Your task to perform on an android device: Search for razer kraken on amazon.com, select the first entry, and add it to the cart. Image 0: 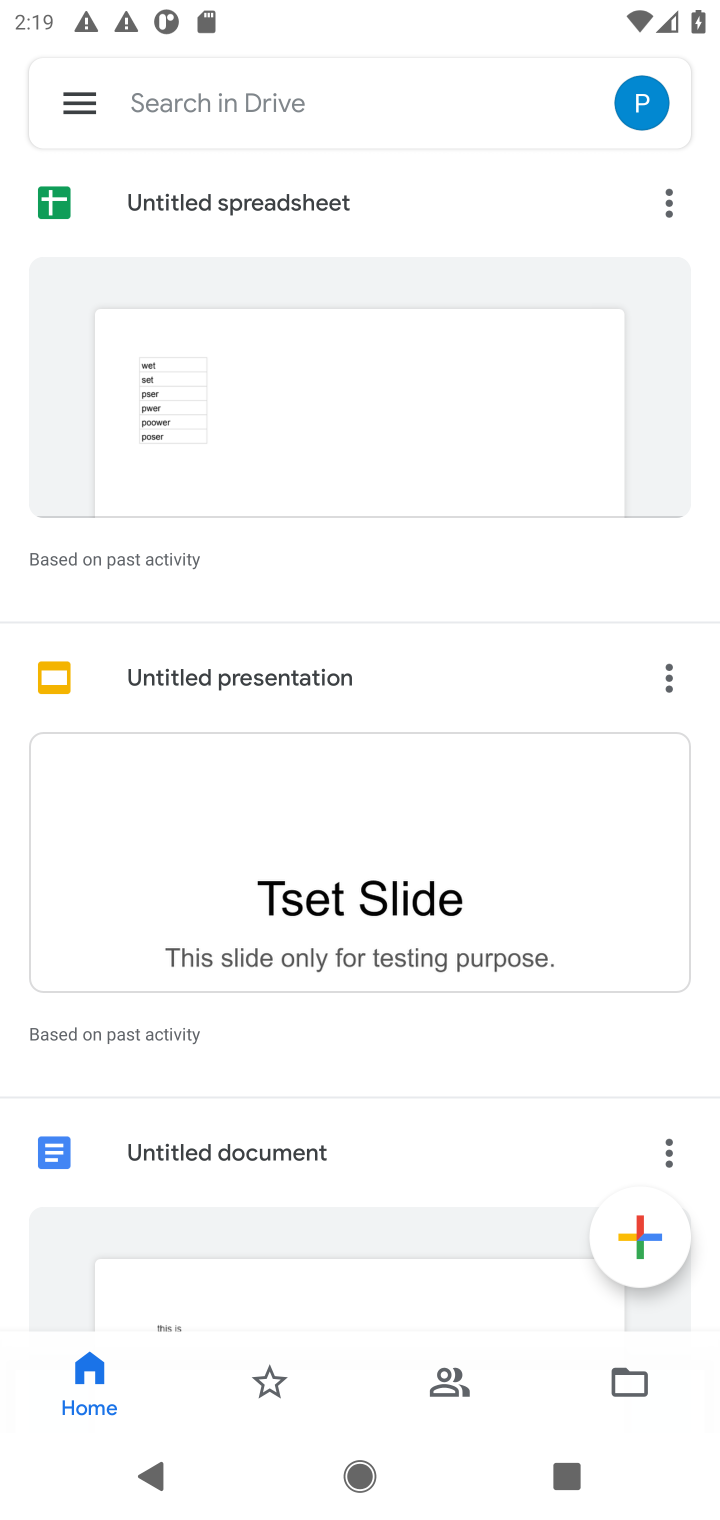
Step 0: press home button
Your task to perform on an android device: Search for razer kraken on amazon.com, select the first entry, and add it to the cart. Image 1: 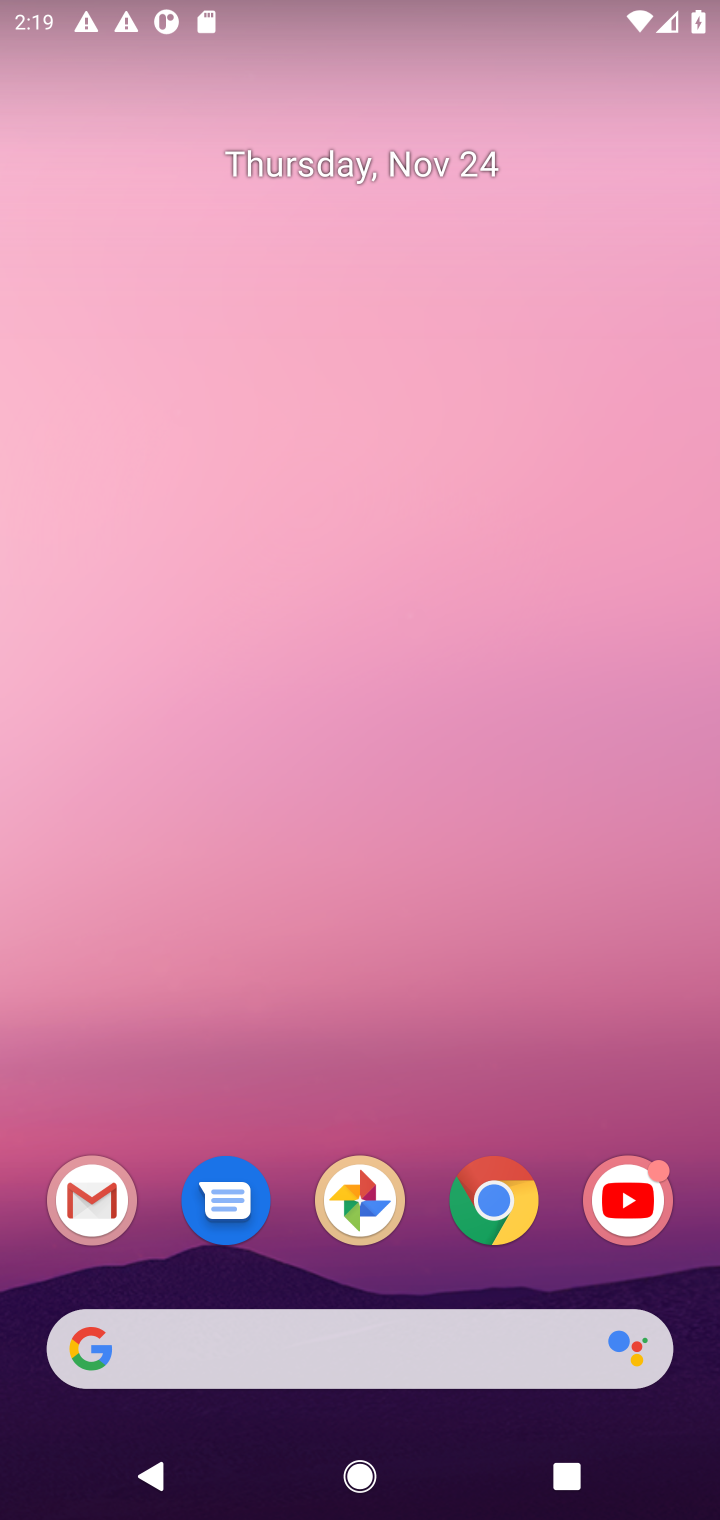
Step 1: click (354, 1341)
Your task to perform on an android device: Search for razer kraken on amazon.com, select the first entry, and add it to the cart. Image 2: 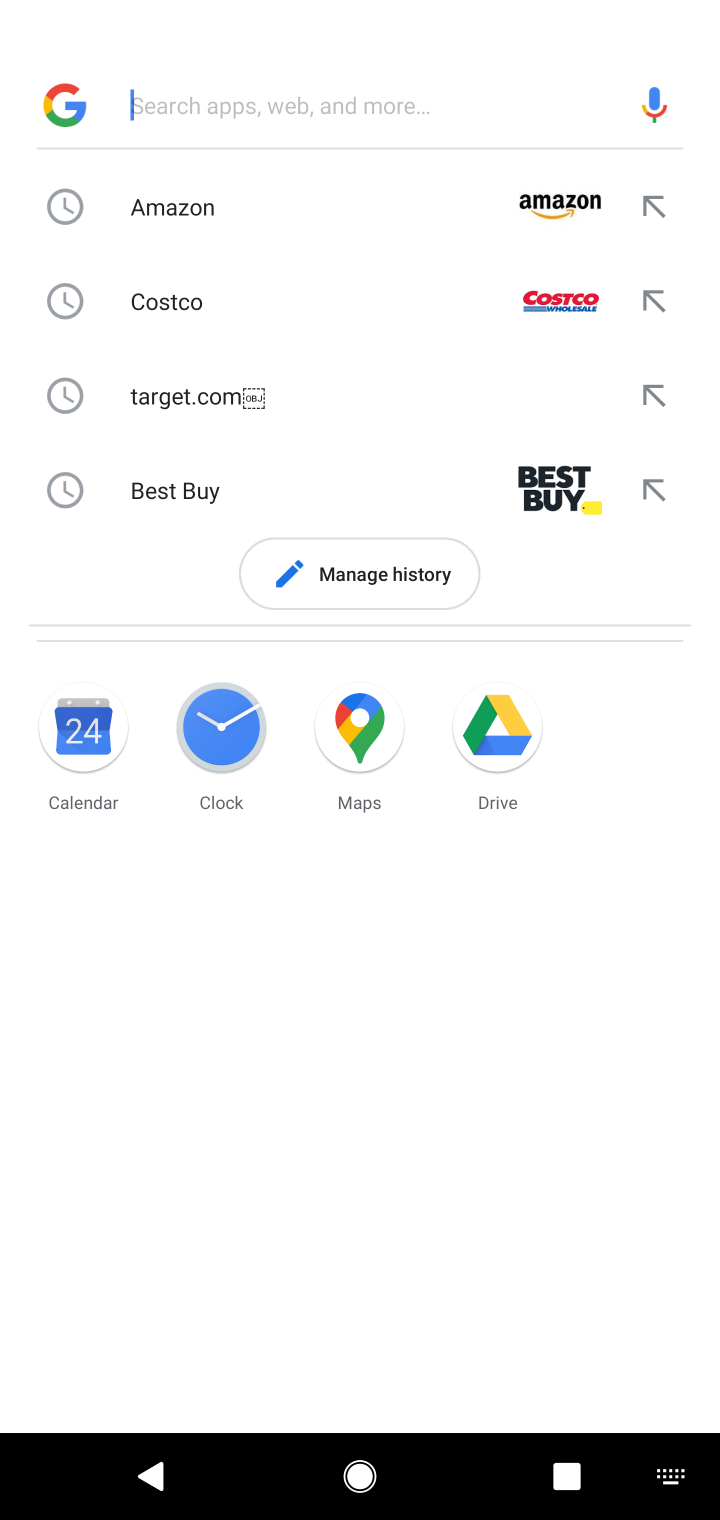
Step 2: type "amazon"
Your task to perform on an android device: Search for razer kraken on amazon.com, select the first entry, and add it to the cart. Image 3: 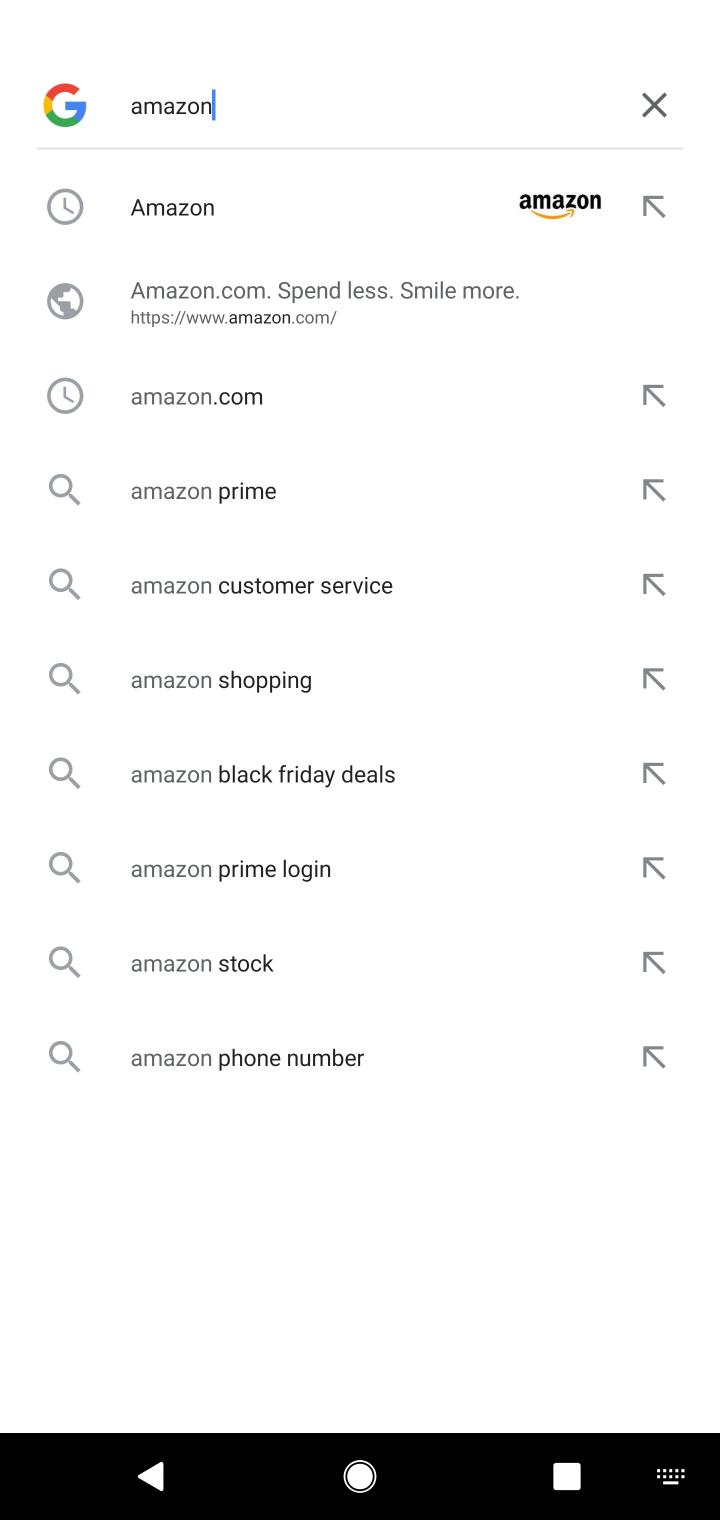
Step 3: click (162, 224)
Your task to perform on an android device: Search for razer kraken on amazon.com, select the first entry, and add it to the cart. Image 4: 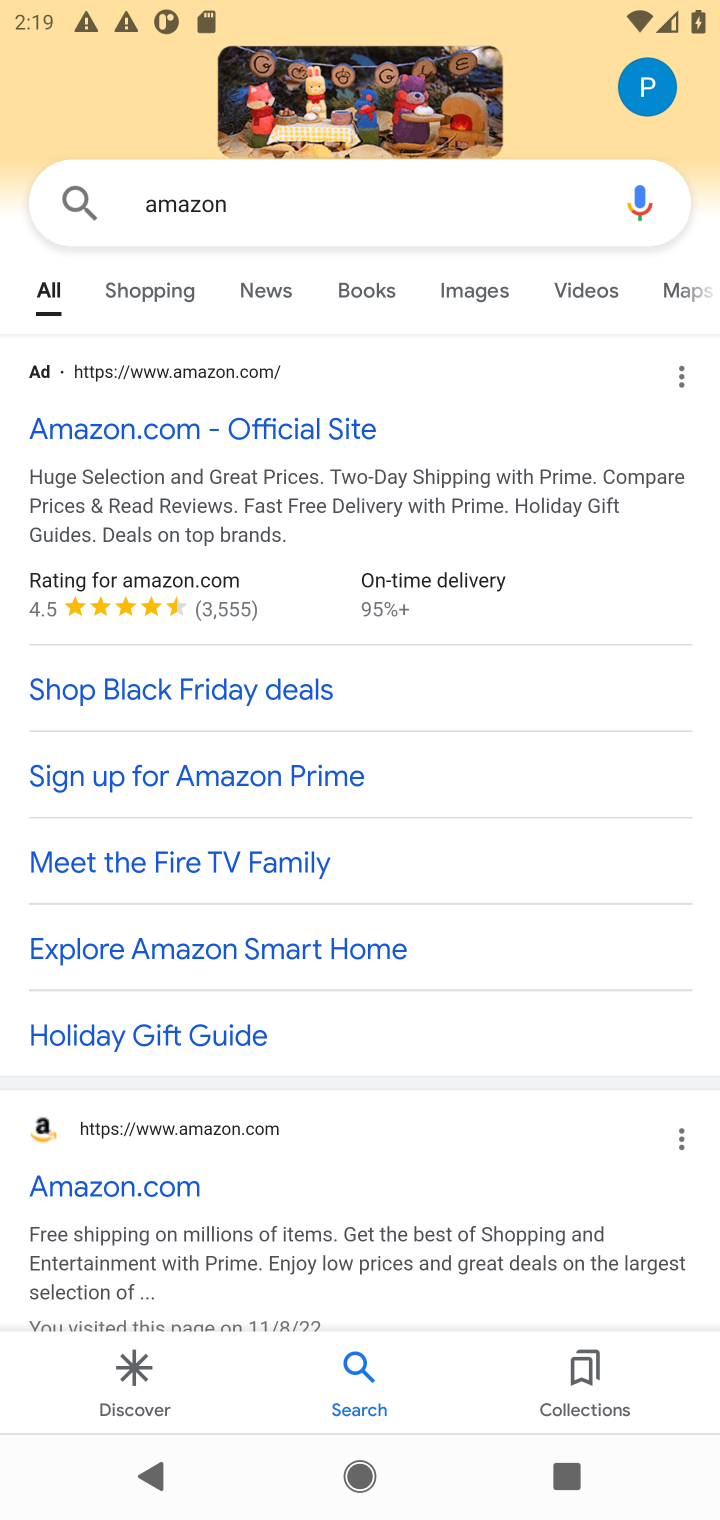
Step 4: click (302, 418)
Your task to perform on an android device: Search for razer kraken on amazon.com, select the first entry, and add it to the cart. Image 5: 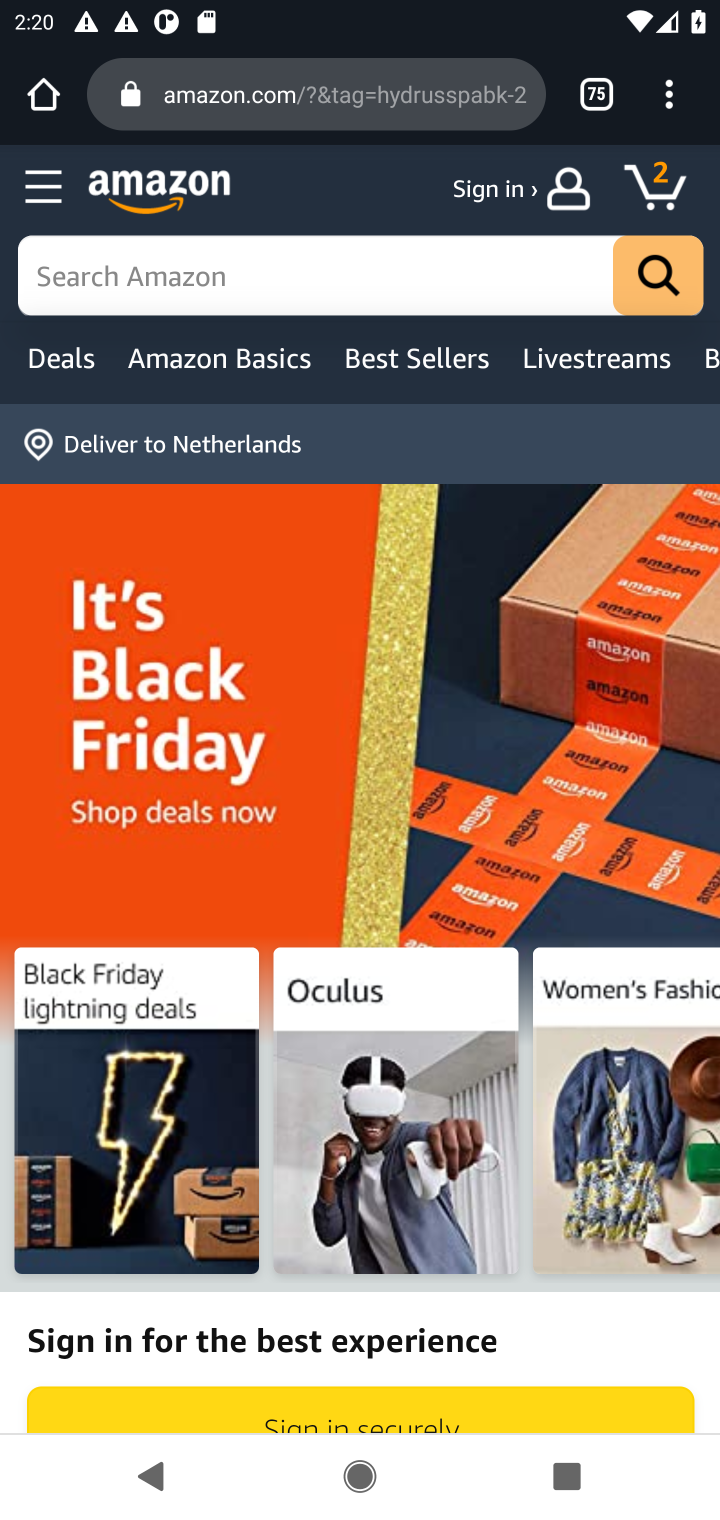
Step 5: click (382, 282)
Your task to perform on an android device: Search for razer kraken on amazon.com, select the first entry, and add it to the cart. Image 6: 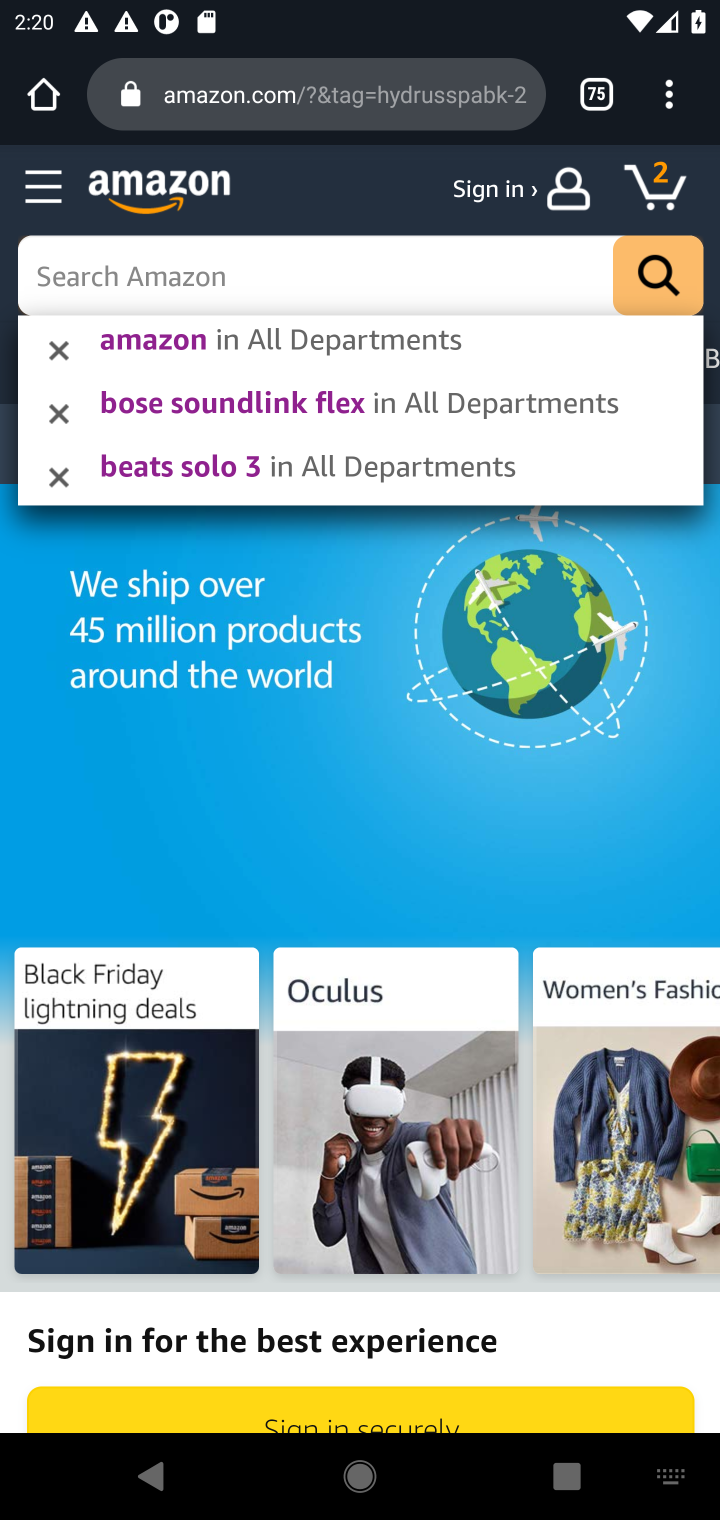
Step 6: type "razer karken"
Your task to perform on an android device: Search for razer kraken on amazon.com, select the first entry, and add it to the cart. Image 7: 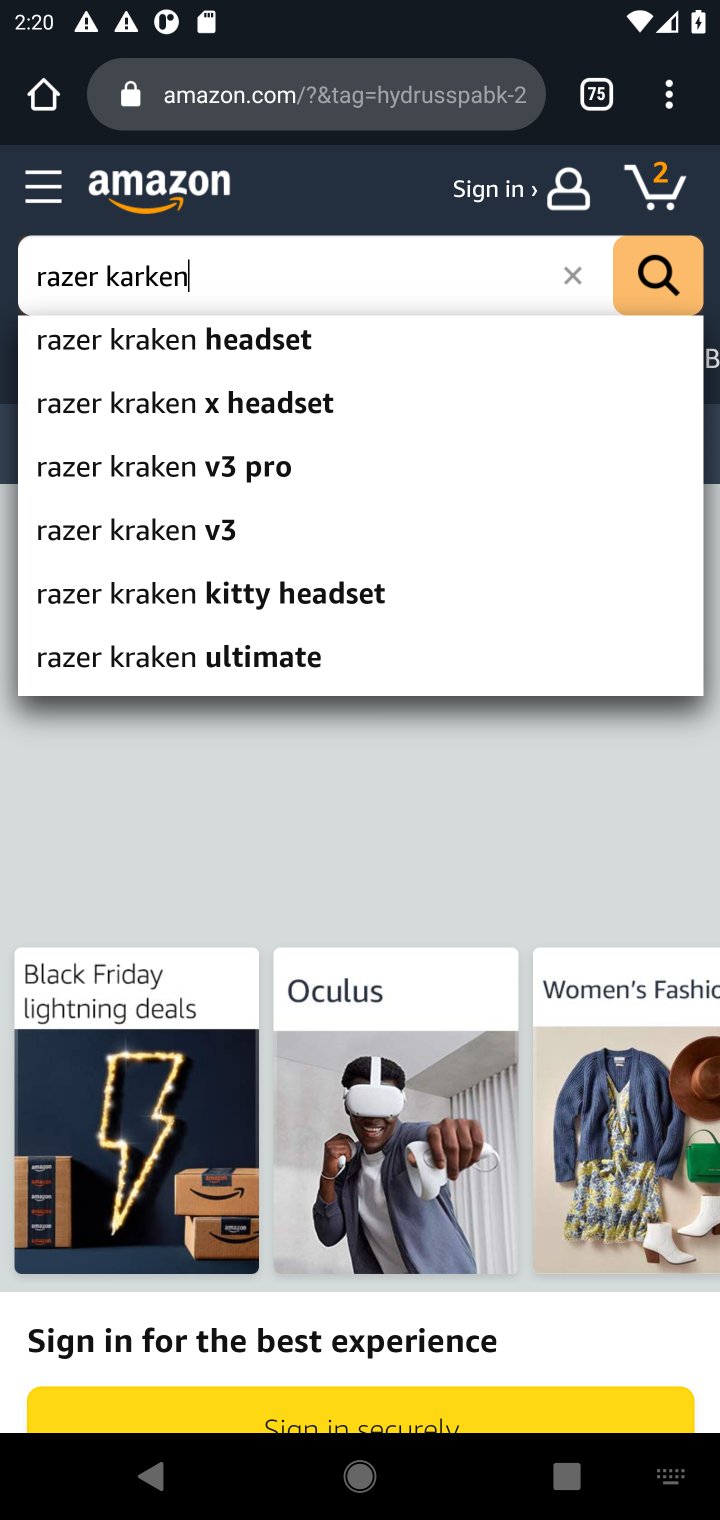
Step 7: click (664, 281)
Your task to perform on an android device: Search for razer kraken on amazon.com, select the first entry, and add it to the cart. Image 8: 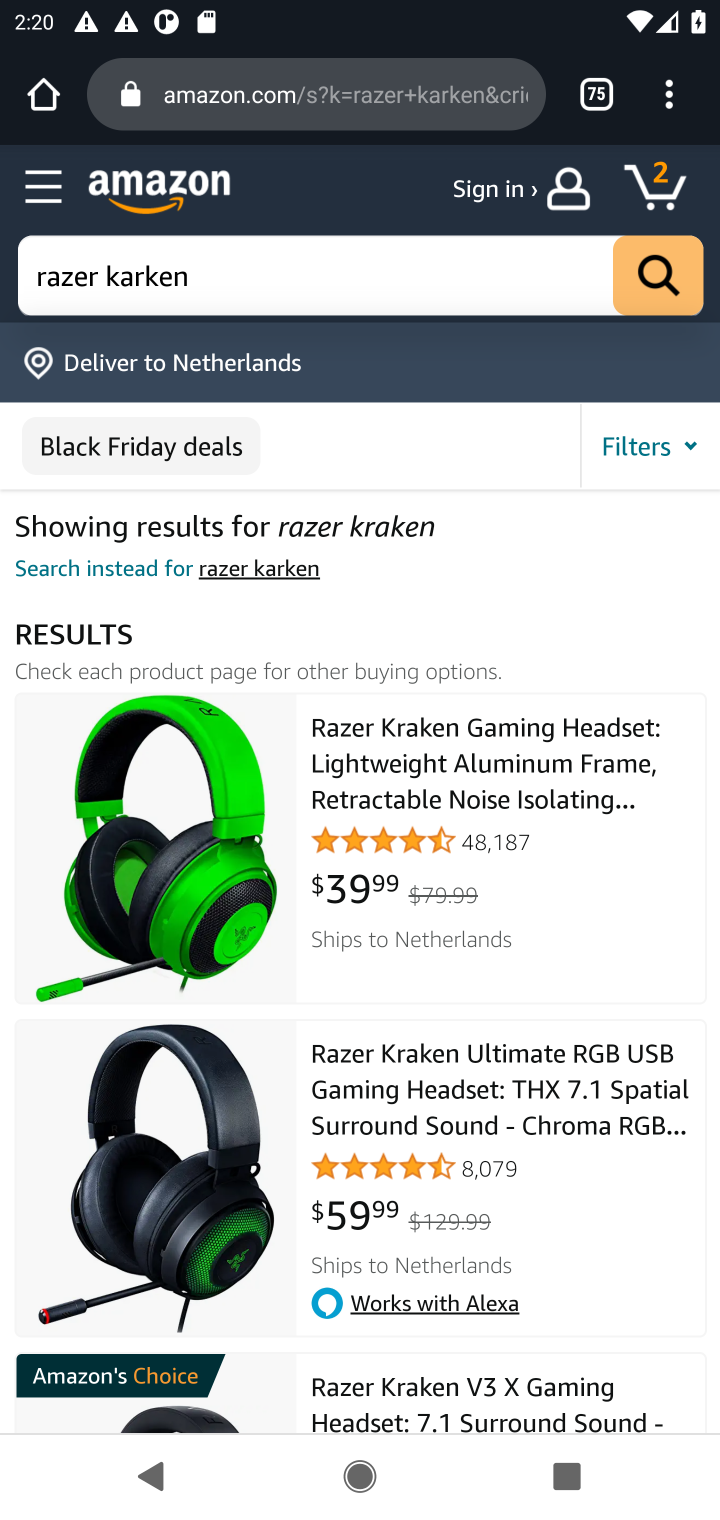
Step 8: click (414, 755)
Your task to perform on an android device: Search for razer kraken on amazon.com, select the first entry, and add it to the cart. Image 9: 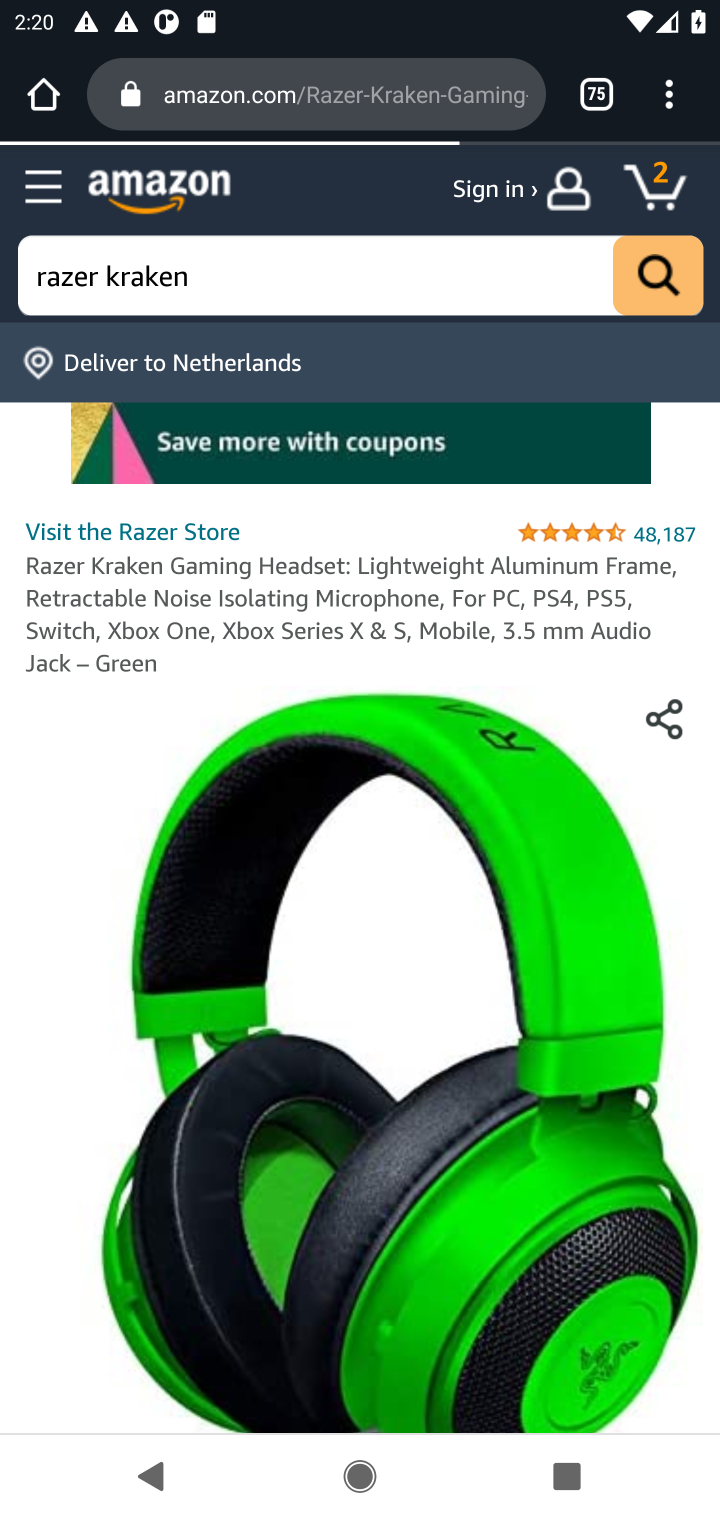
Step 9: drag from (297, 1156) to (231, 160)
Your task to perform on an android device: Search for razer kraken on amazon.com, select the first entry, and add it to the cart. Image 10: 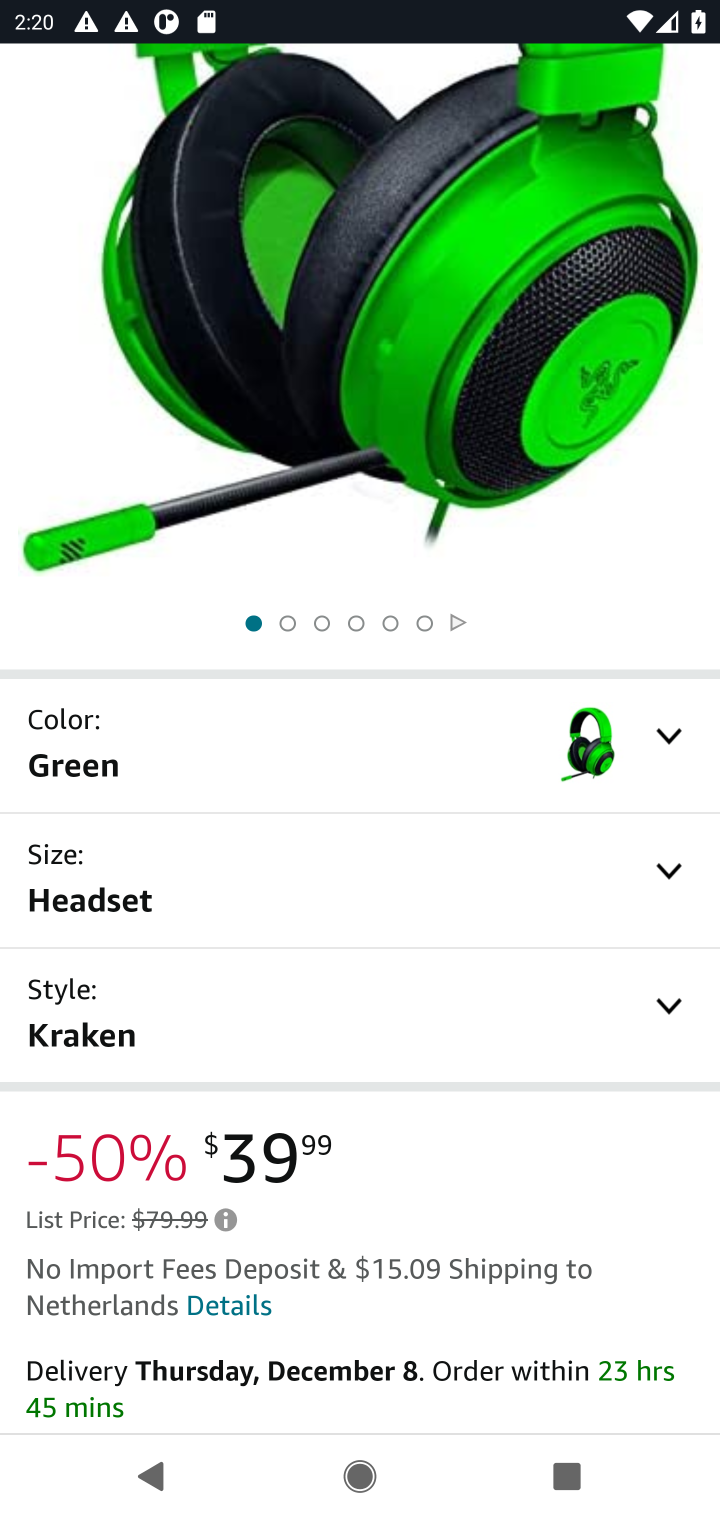
Step 10: drag from (267, 1280) to (204, 584)
Your task to perform on an android device: Search for razer kraken on amazon.com, select the first entry, and add it to the cart. Image 11: 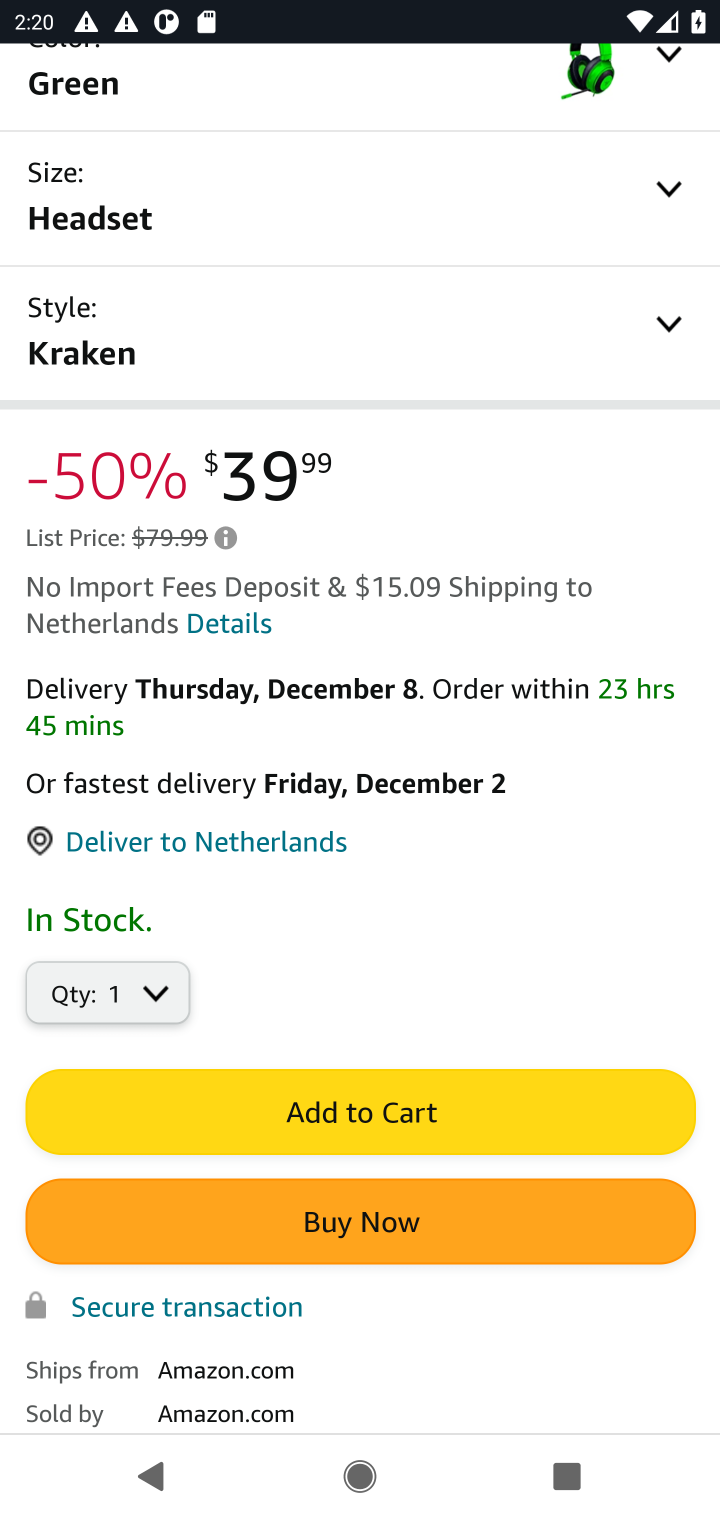
Step 11: click (423, 1081)
Your task to perform on an android device: Search for razer kraken on amazon.com, select the first entry, and add it to the cart. Image 12: 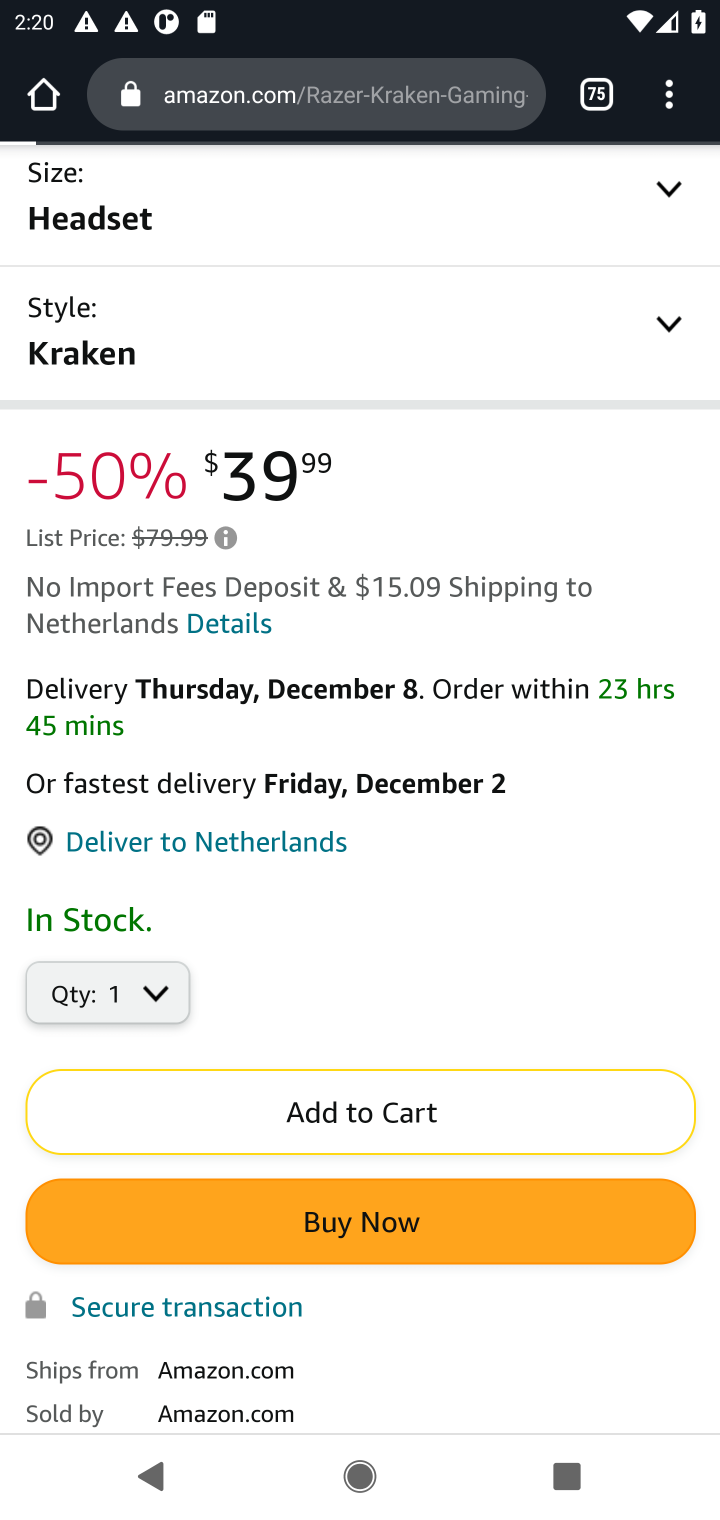
Step 12: task complete